Your task to perform on an android device: Google the capital of Paraguay Image 0: 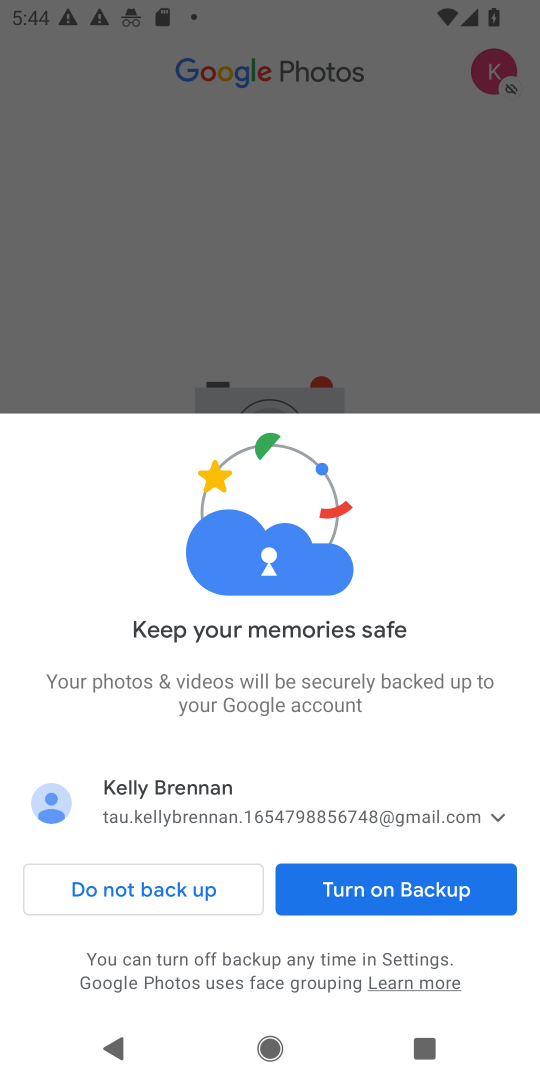
Step 0: press home button
Your task to perform on an android device: Google the capital of Paraguay Image 1: 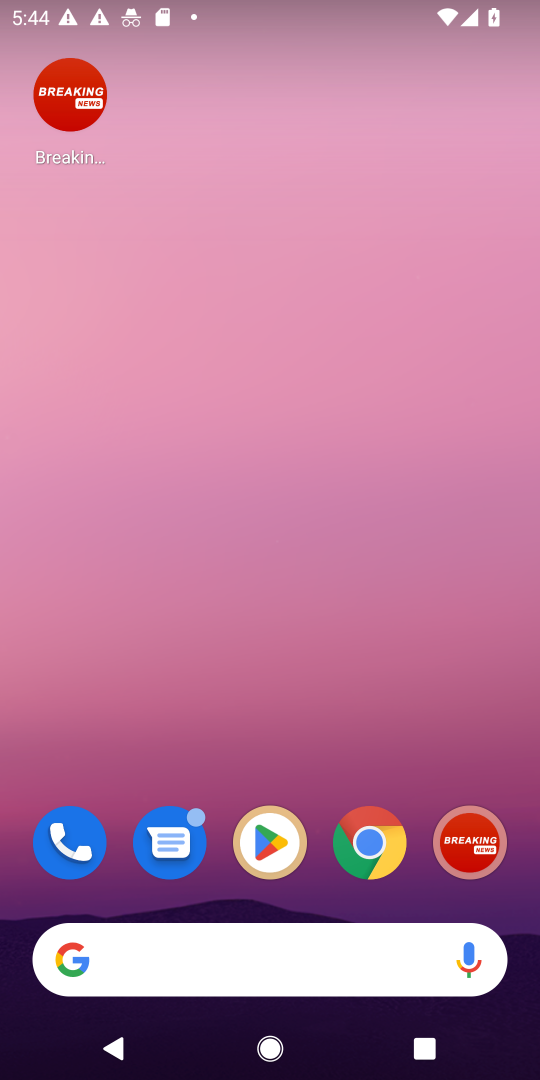
Step 1: click (178, 957)
Your task to perform on an android device: Google the capital of Paraguay Image 2: 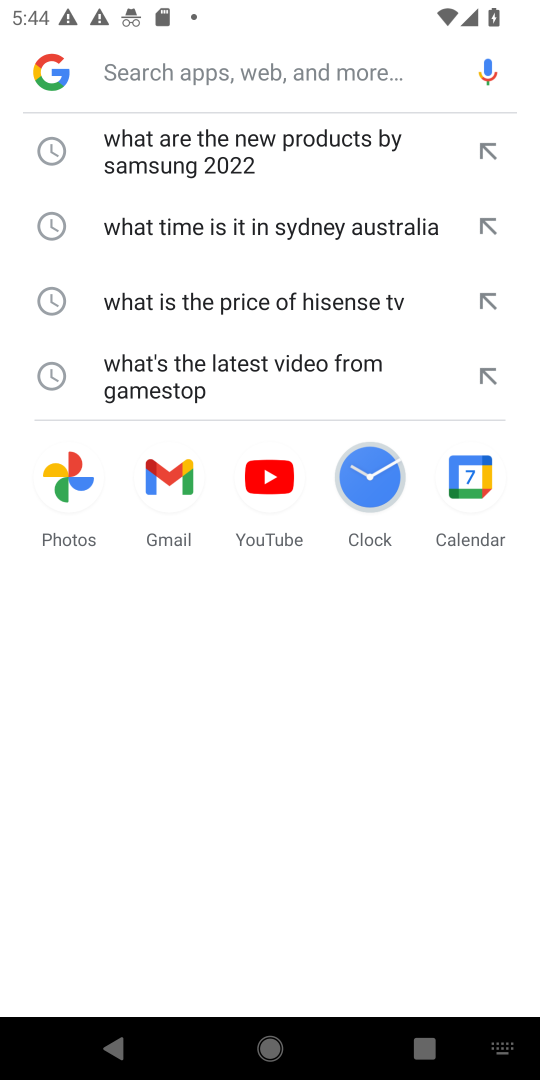
Step 2: click (187, 70)
Your task to perform on an android device: Google the capital of Paraguay Image 3: 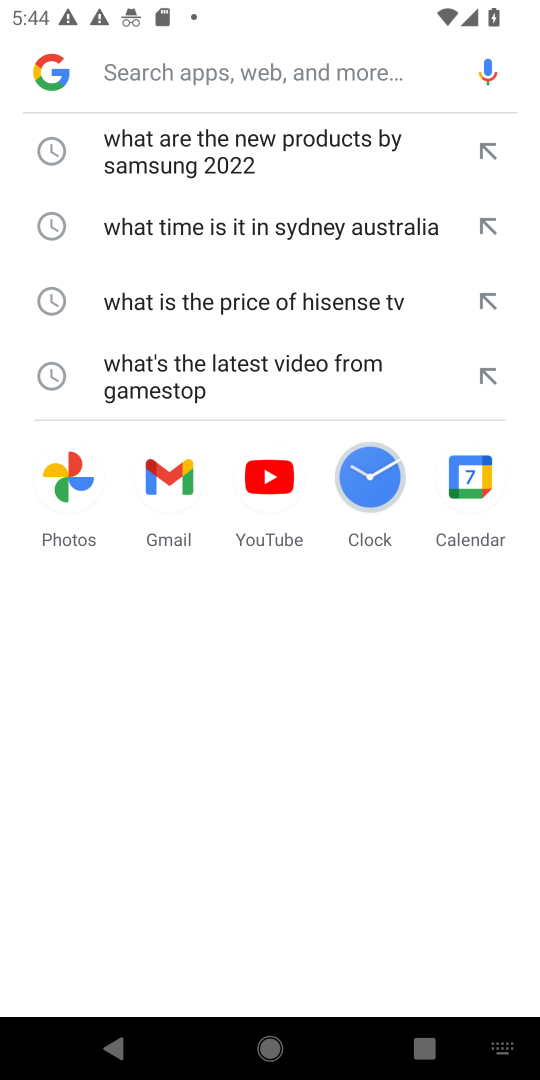
Step 3: type "capital of Paraguay"
Your task to perform on an android device: Google the capital of Paraguay Image 4: 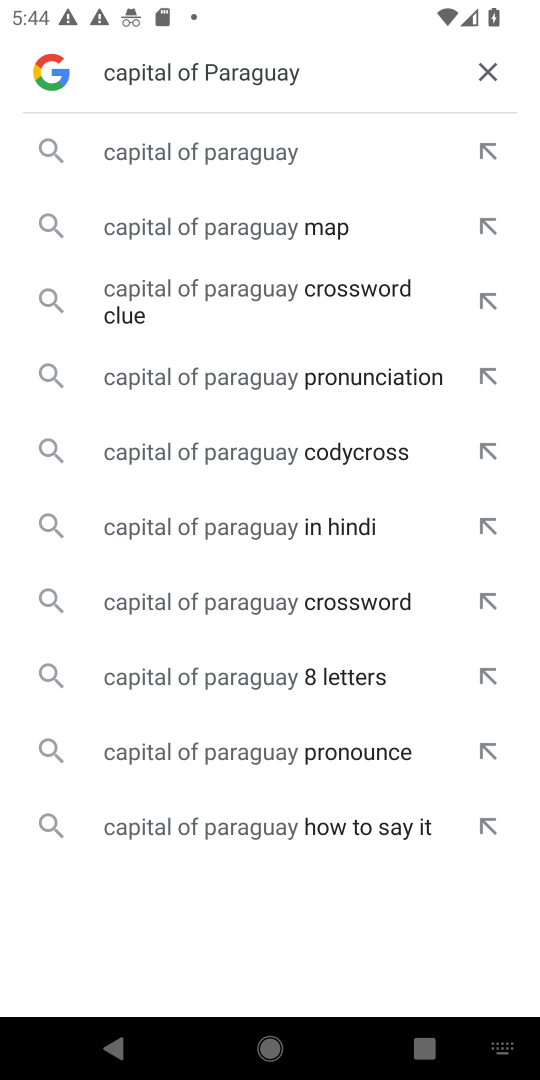
Step 4: click (297, 152)
Your task to perform on an android device: Google the capital of Paraguay Image 5: 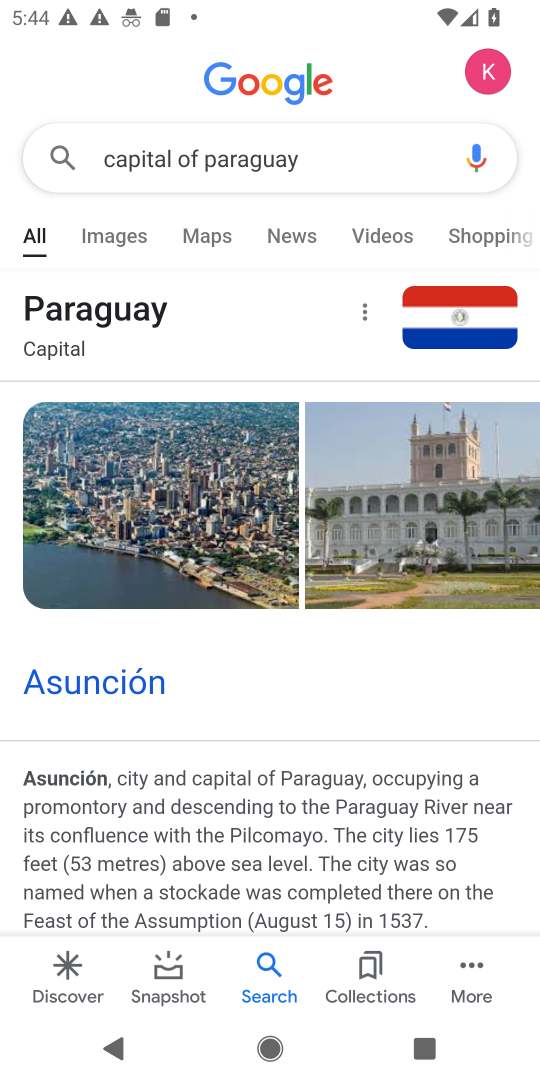
Step 5: task complete